Your task to perform on an android device: Open Chrome and go to the settings page Image 0: 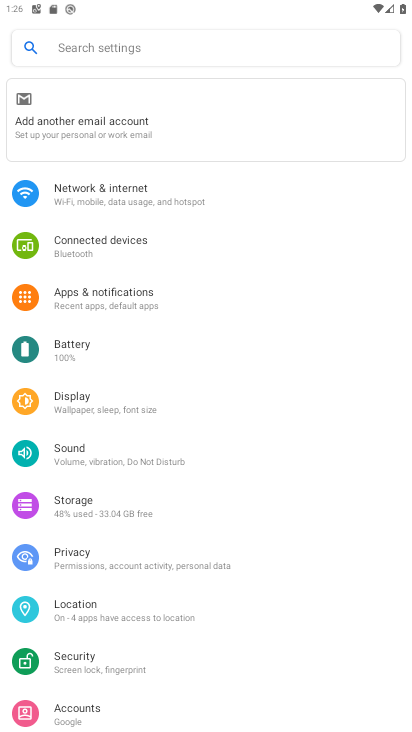
Step 0: press home button
Your task to perform on an android device: Open Chrome and go to the settings page Image 1: 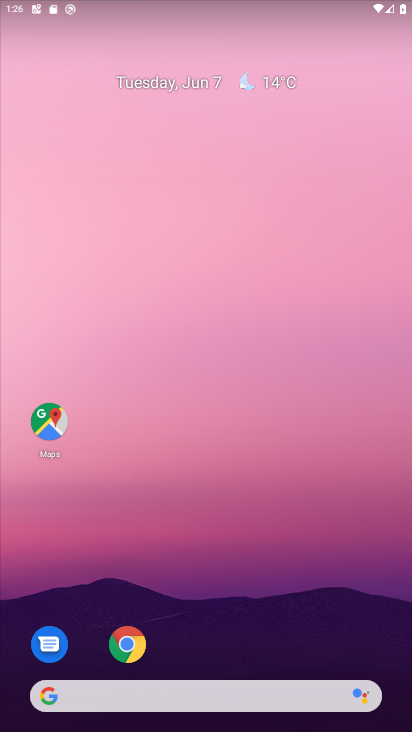
Step 1: click (119, 639)
Your task to perform on an android device: Open Chrome and go to the settings page Image 2: 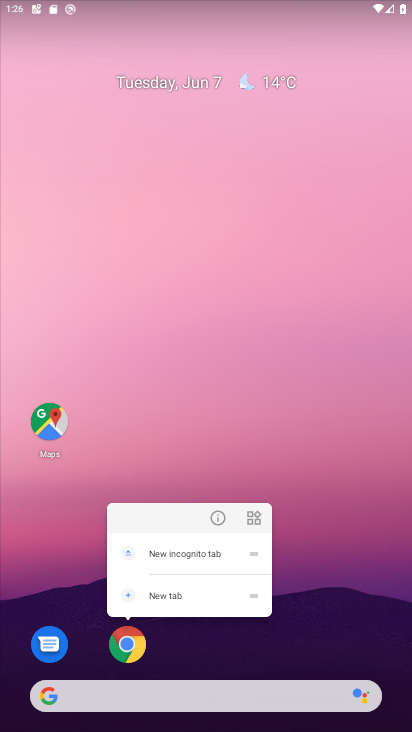
Step 2: click (113, 637)
Your task to perform on an android device: Open Chrome and go to the settings page Image 3: 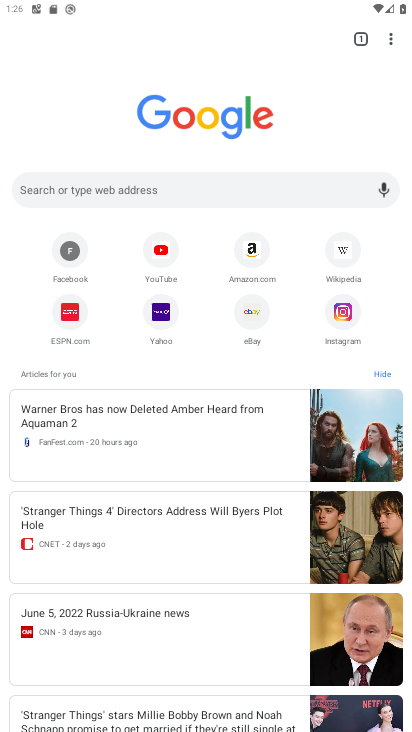
Step 3: click (384, 45)
Your task to perform on an android device: Open Chrome and go to the settings page Image 4: 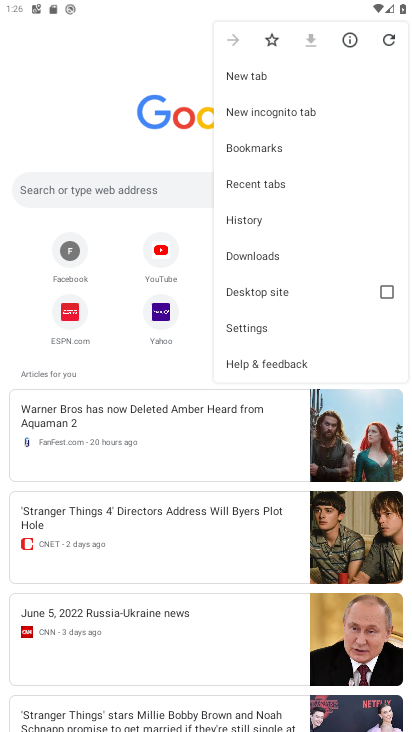
Step 4: click (290, 327)
Your task to perform on an android device: Open Chrome and go to the settings page Image 5: 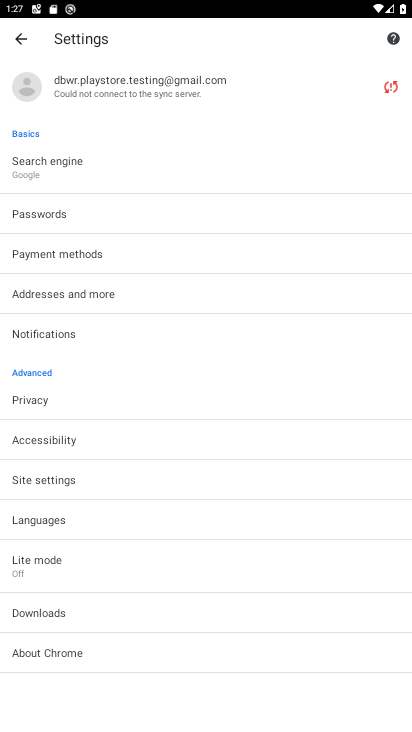
Step 5: task complete